Your task to perform on an android device: open app "Google Docs" Image 0: 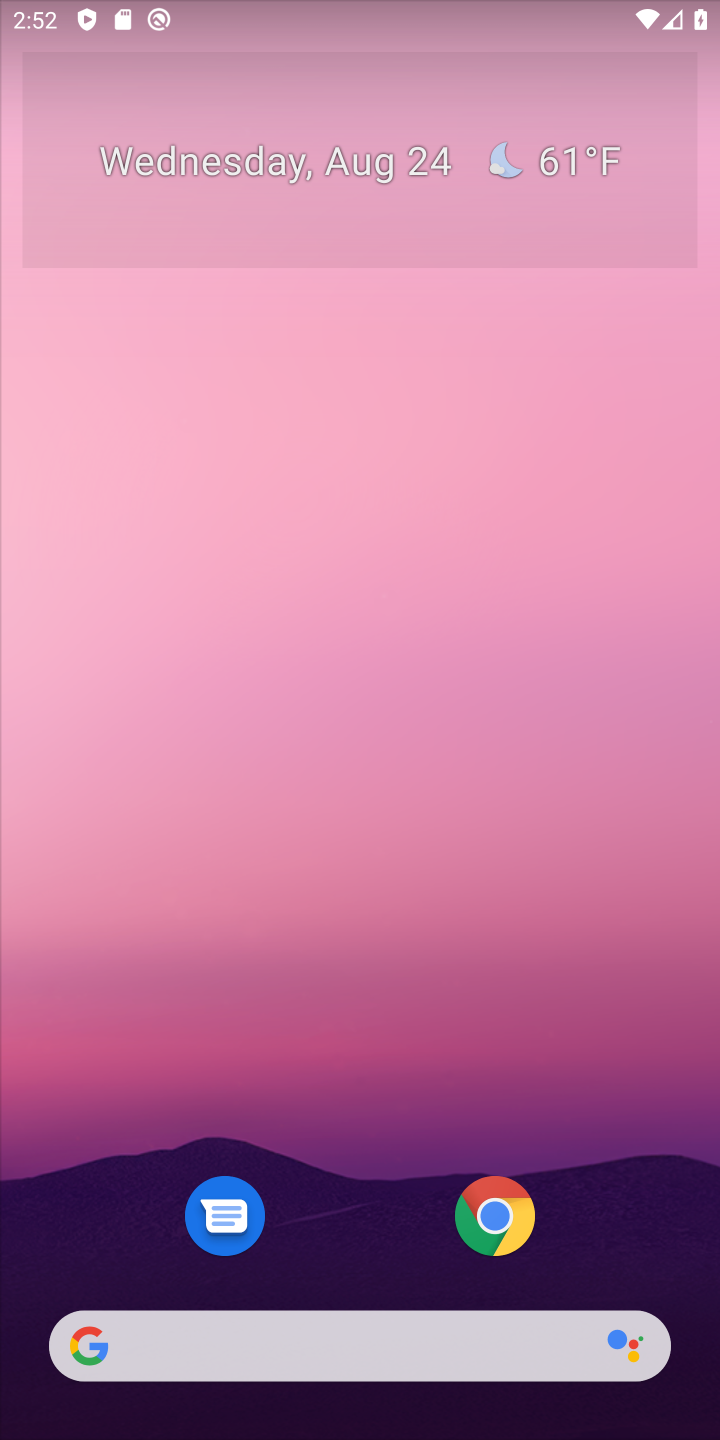
Step 0: press home button
Your task to perform on an android device: open app "Google Docs" Image 1: 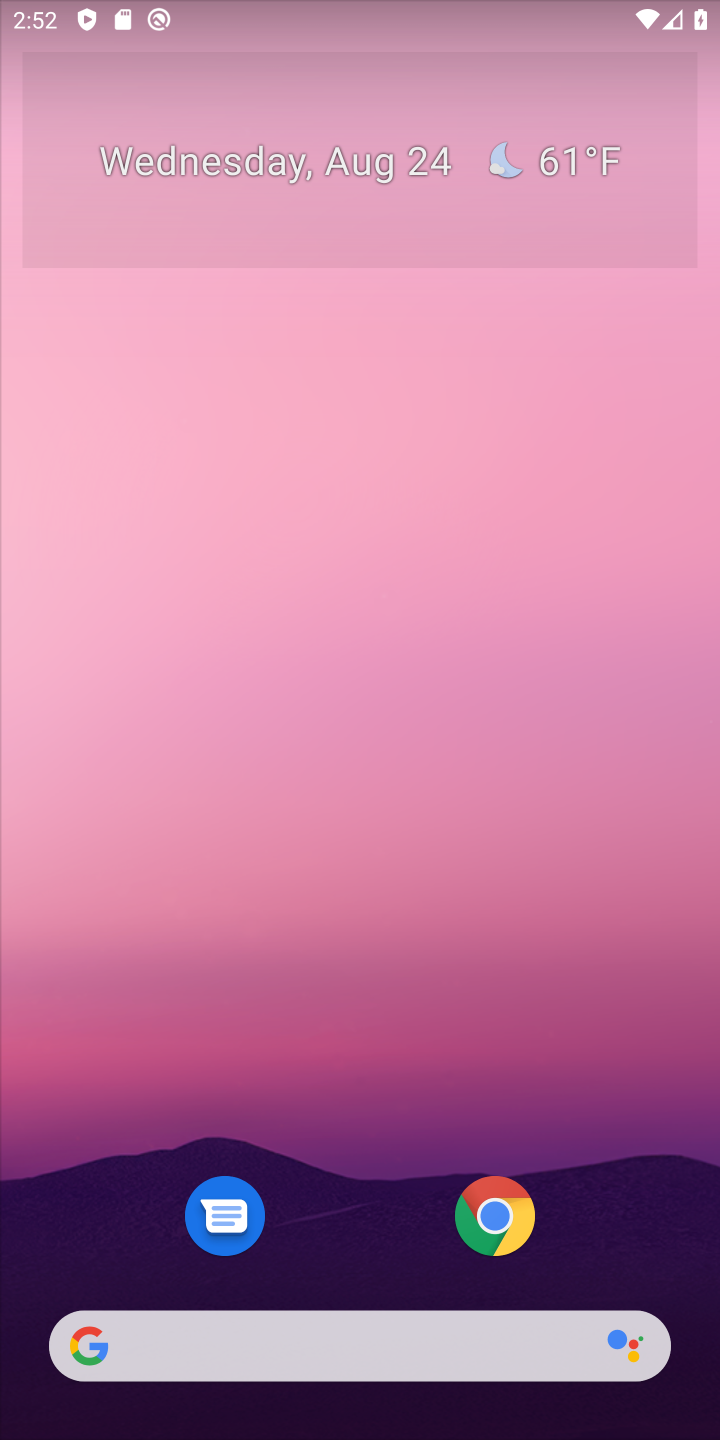
Step 1: drag from (607, 1182) to (619, 117)
Your task to perform on an android device: open app "Google Docs" Image 2: 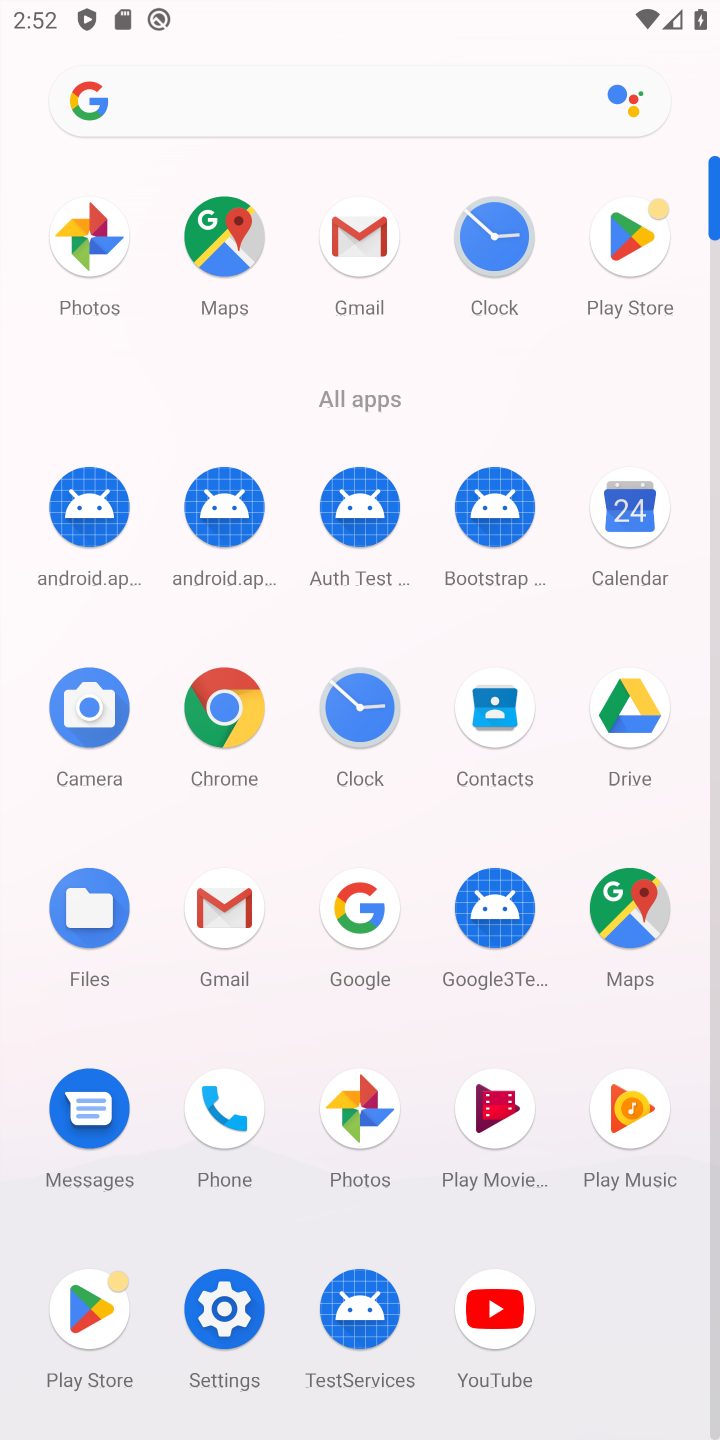
Step 2: click (625, 238)
Your task to perform on an android device: open app "Google Docs" Image 3: 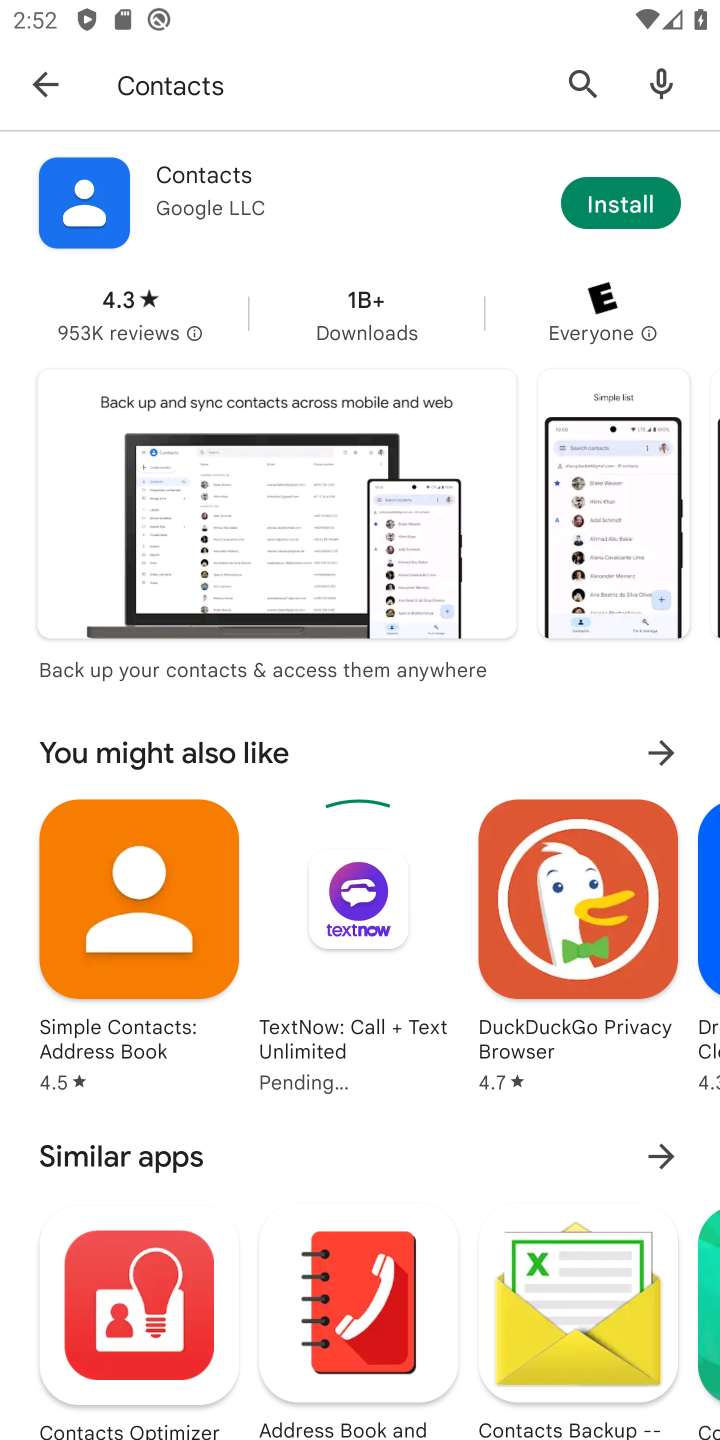
Step 3: press back button
Your task to perform on an android device: open app "Google Docs" Image 4: 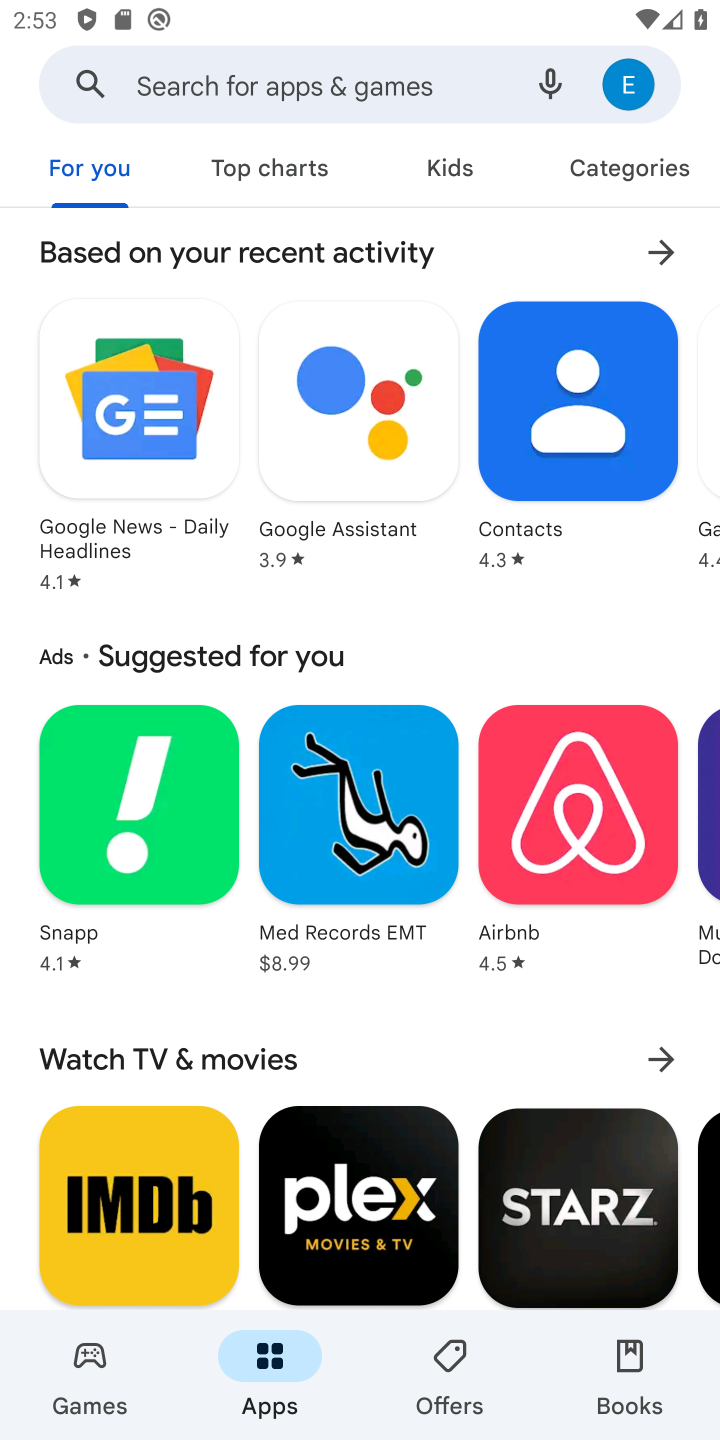
Step 4: click (382, 82)
Your task to perform on an android device: open app "Google Docs" Image 5: 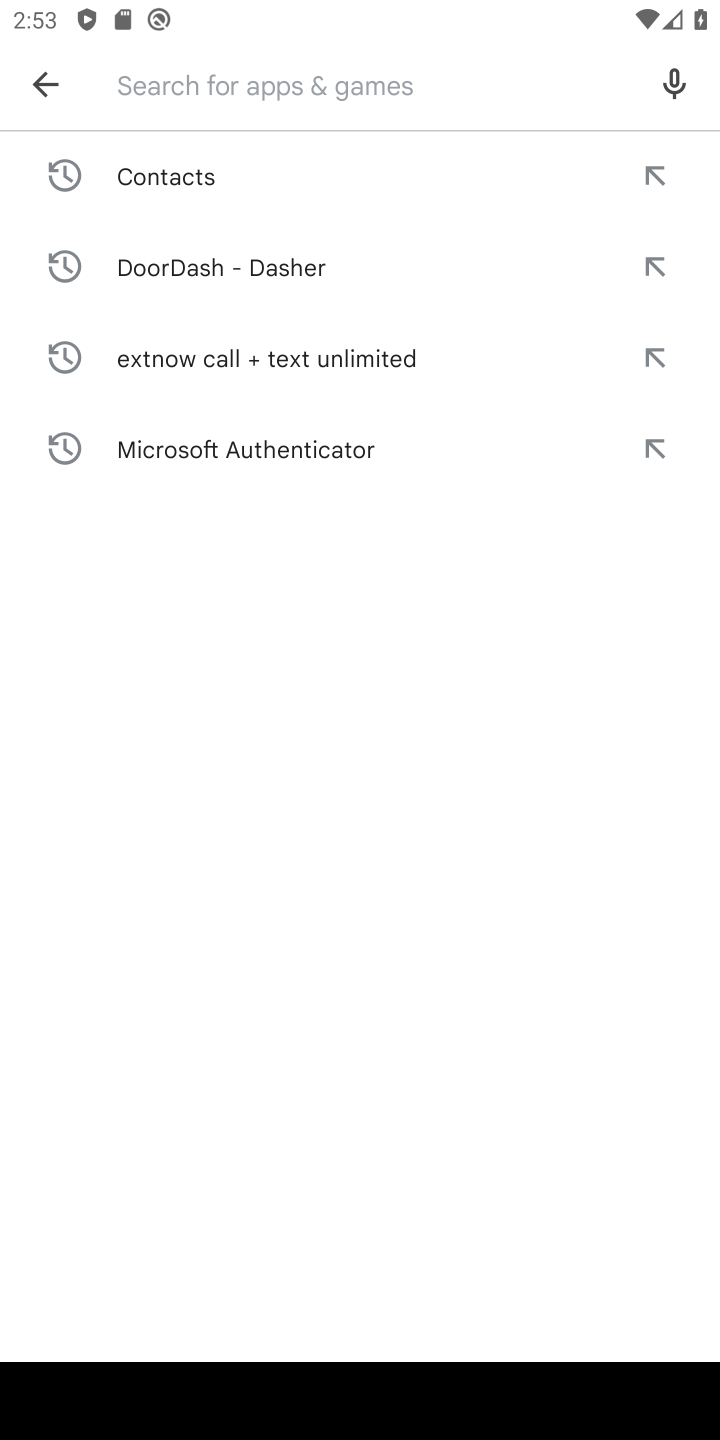
Step 5: press enter
Your task to perform on an android device: open app "Google Docs" Image 6: 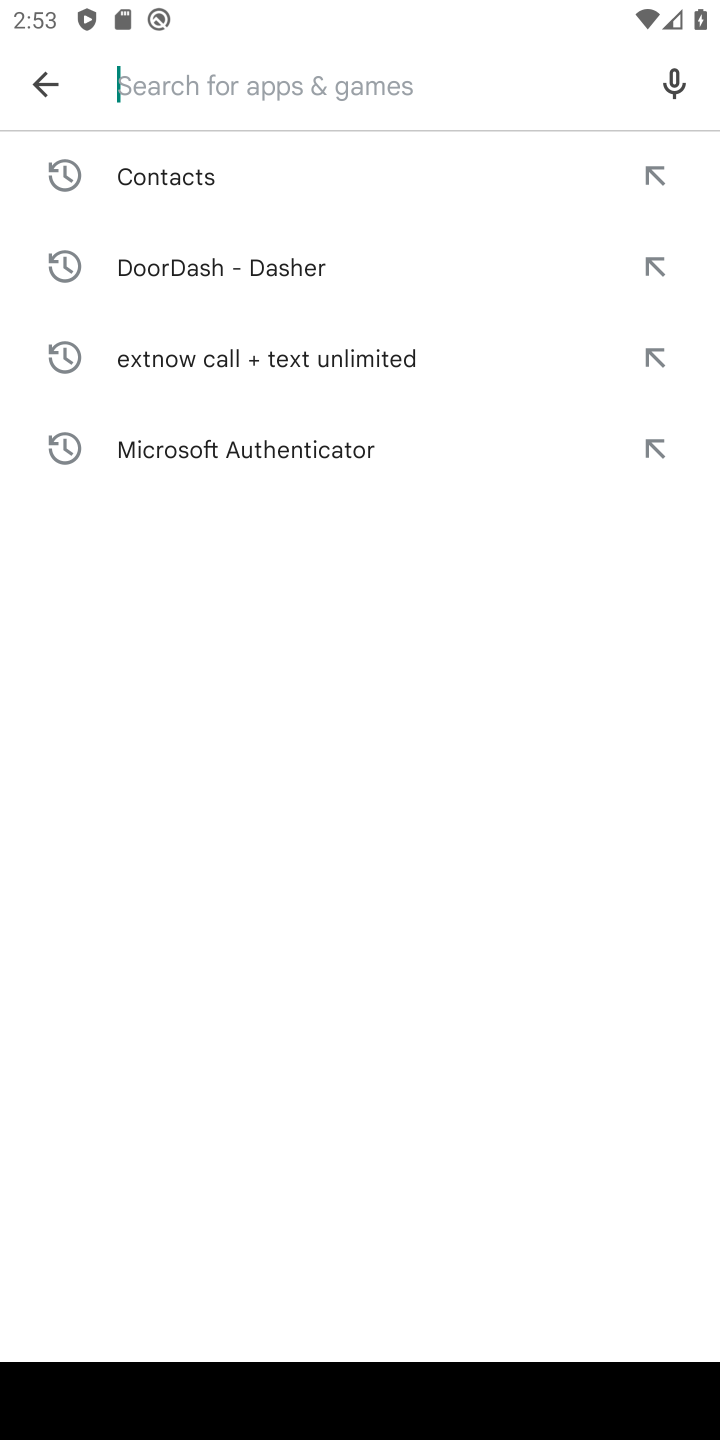
Step 6: type "Google Docs"
Your task to perform on an android device: open app "Google Docs" Image 7: 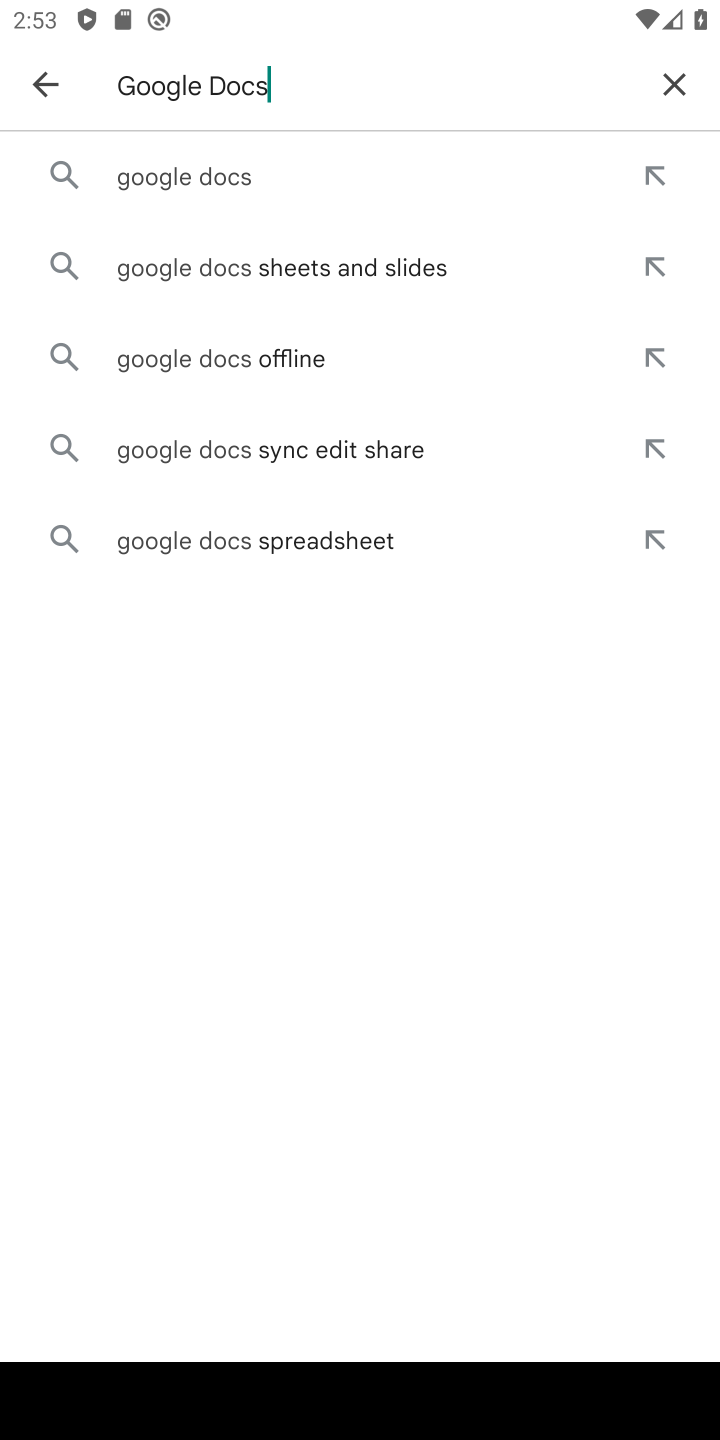
Step 7: click (232, 181)
Your task to perform on an android device: open app "Google Docs" Image 8: 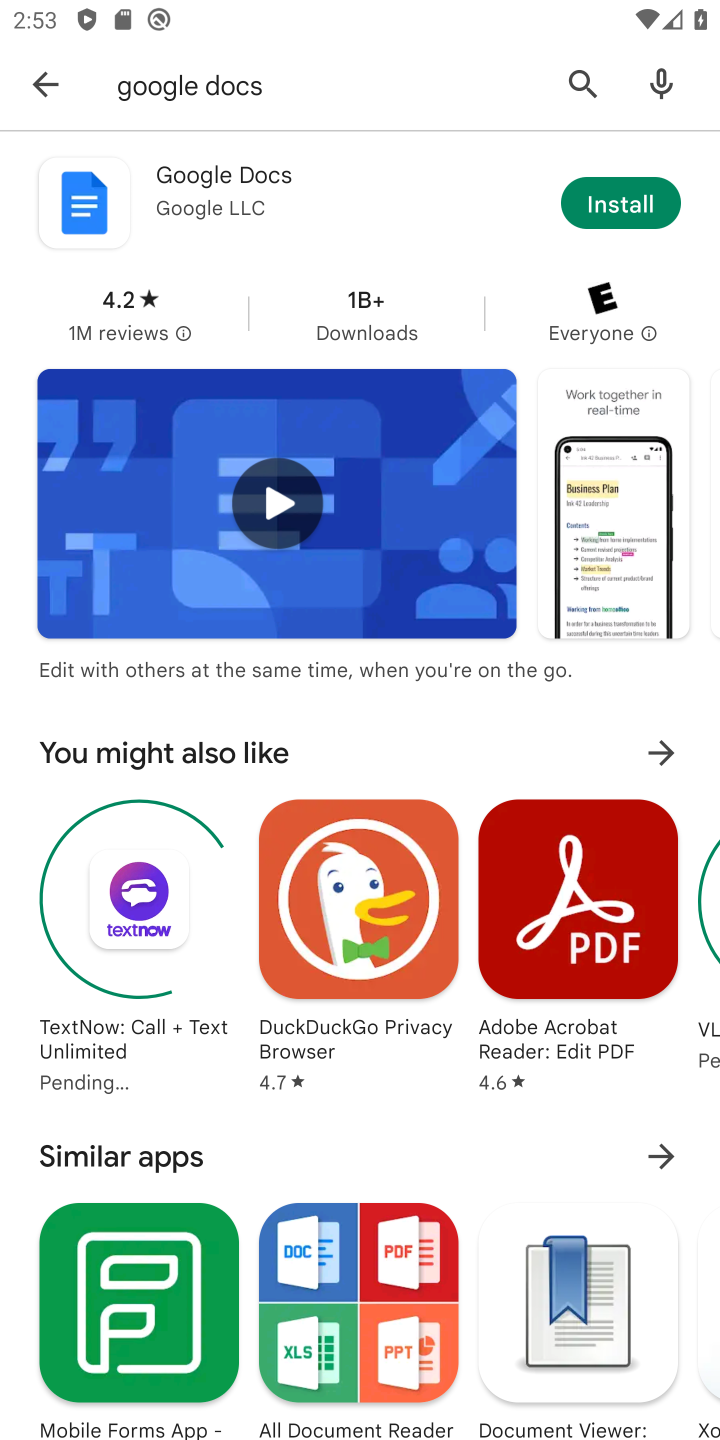
Step 8: task complete